Your task to perform on an android device: turn off notifications in google photos Image 0: 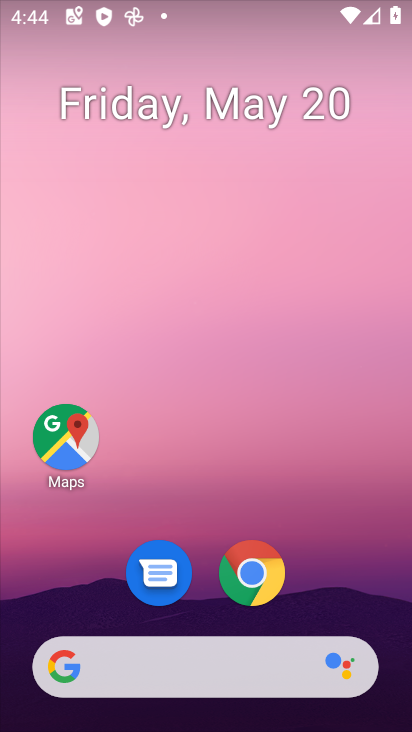
Step 0: drag from (396, 652) to (330, 54)
Your task to perform on an android device: turn off notifications in google photos Image 1: 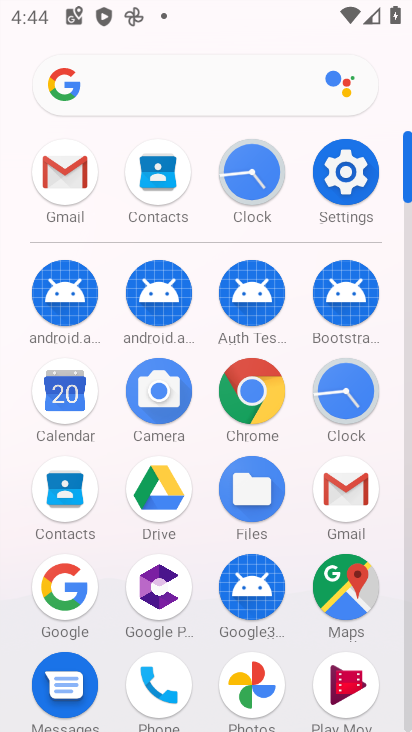
Step 1: click (410, 718)
Your task to perform on an android device: turn off notifications in google photos Image 2: 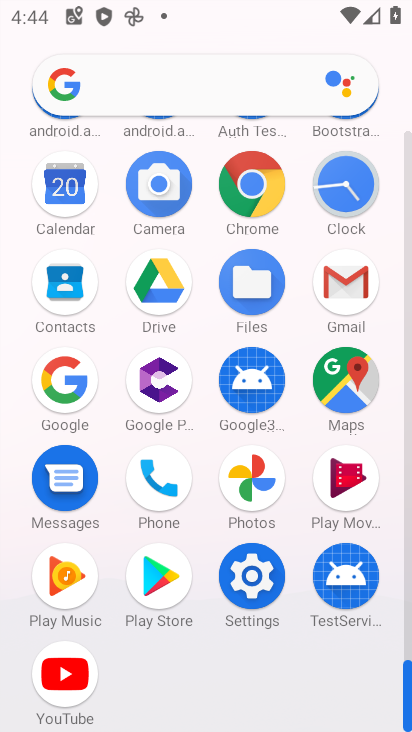
Step 2: click (251, 479)
Your task to perform on an android device: turn off notifications in google photos Image 3: 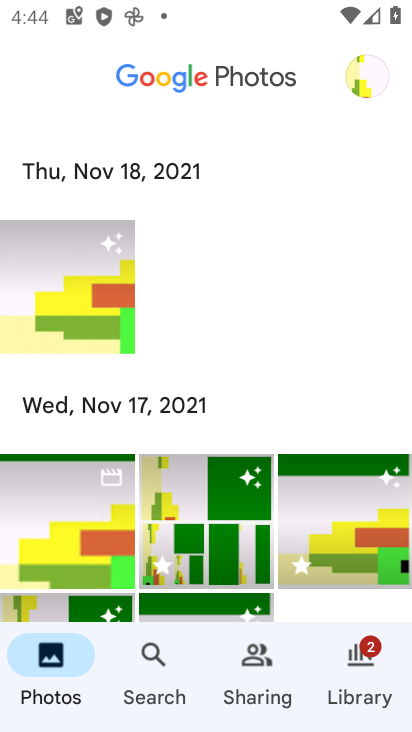
Step 3: click (370, 81)
Your task to perform on an android device: turn off notifications in google photos Image 4: 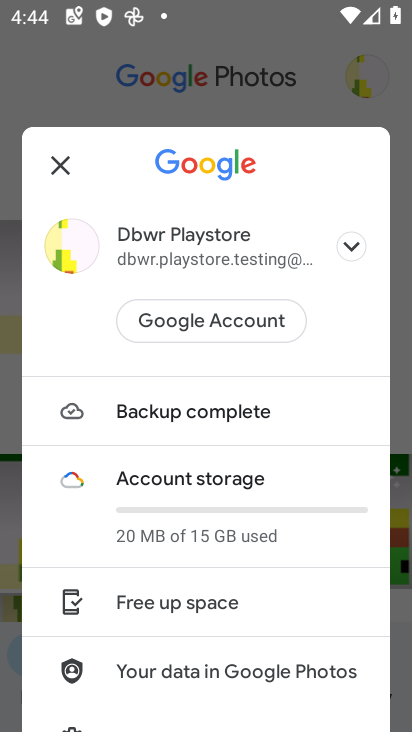
Step 4: drag from (308, 657) to (310, 254)
Your task to perform on an android device: turn off notifications in google photos Image 5: 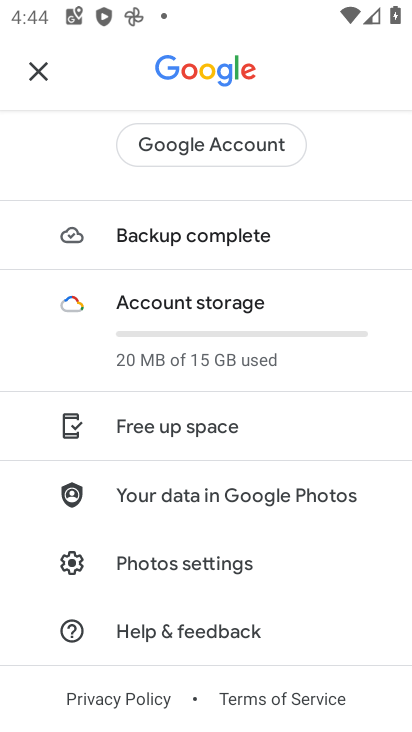
Step 5: click (138, 566)
Your task to perform on an android device: turn off notifications in google photos Image 6: 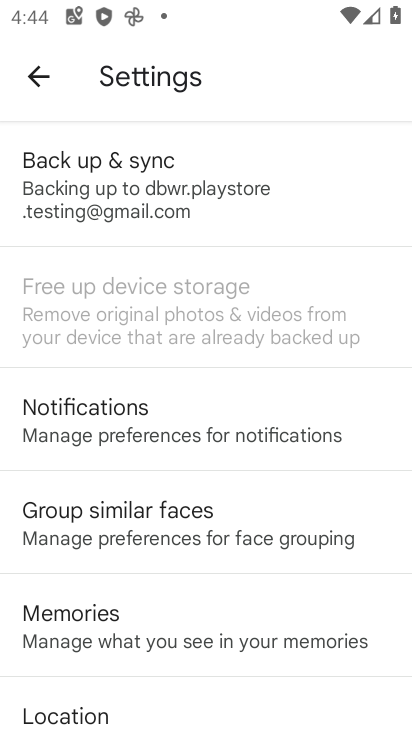
Step 6: click (100, 421)
Your task to perform on an android device: turn off notifications in google photos Image 7: 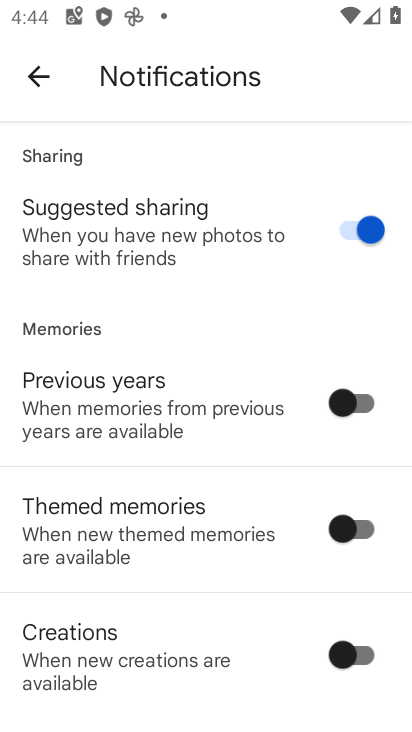
Step 7: drag from (279, 636) to (280, 207)
Your task to perform on an android device: turn off notifications in google photos Image 8: 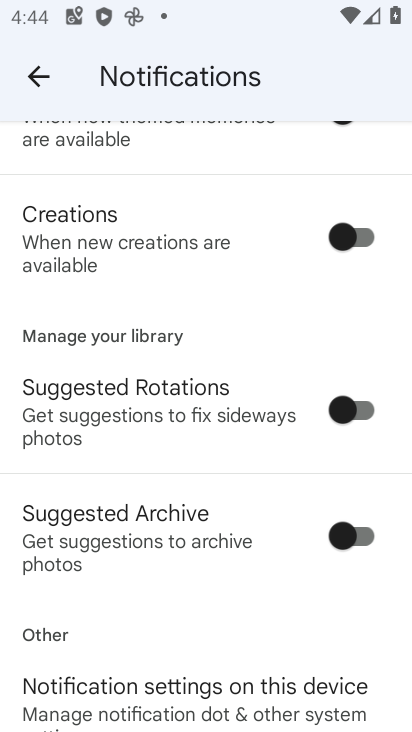
Step 8: drag from (249, 653) to (257, 278)
Your task to perform on an android device: turn off notifications in google photos Image 9: 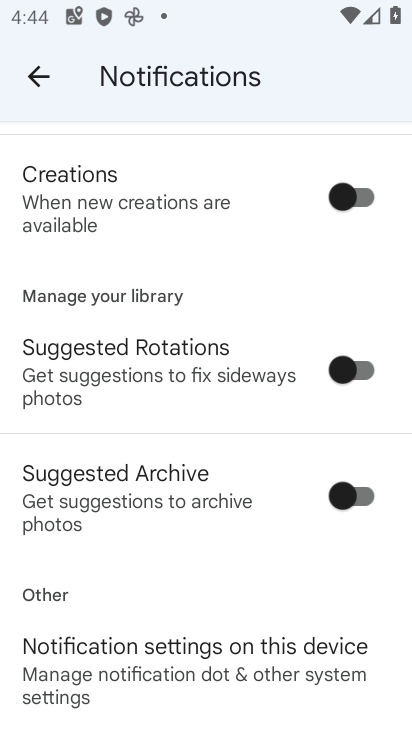
Step 9: click (133, 663)
Your task to perform on an android device: turn off notifications in google photos Image 10: 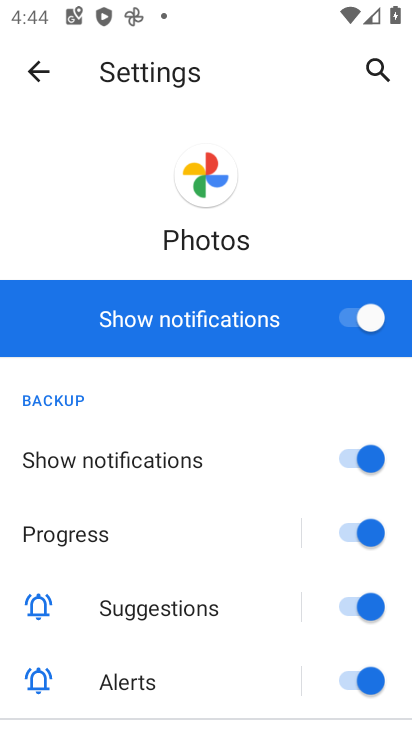
Step 10: click (346, 315)
Your task to perform on an android device: turn off notifications in google photos Image 11: 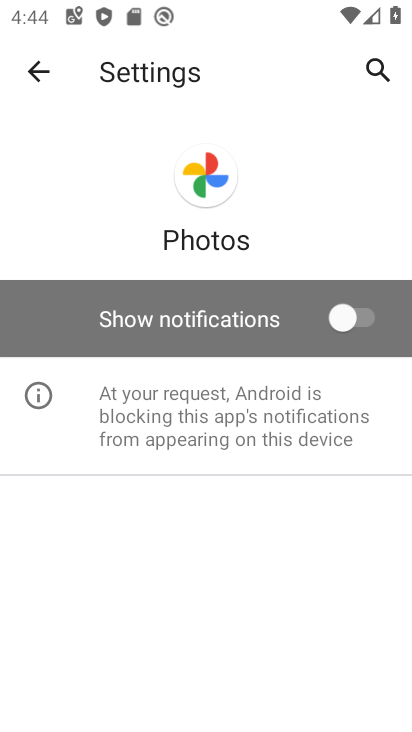
Step 11: task complete